Your task to perform on an android device: snooze an email in the gmail app Image 0: 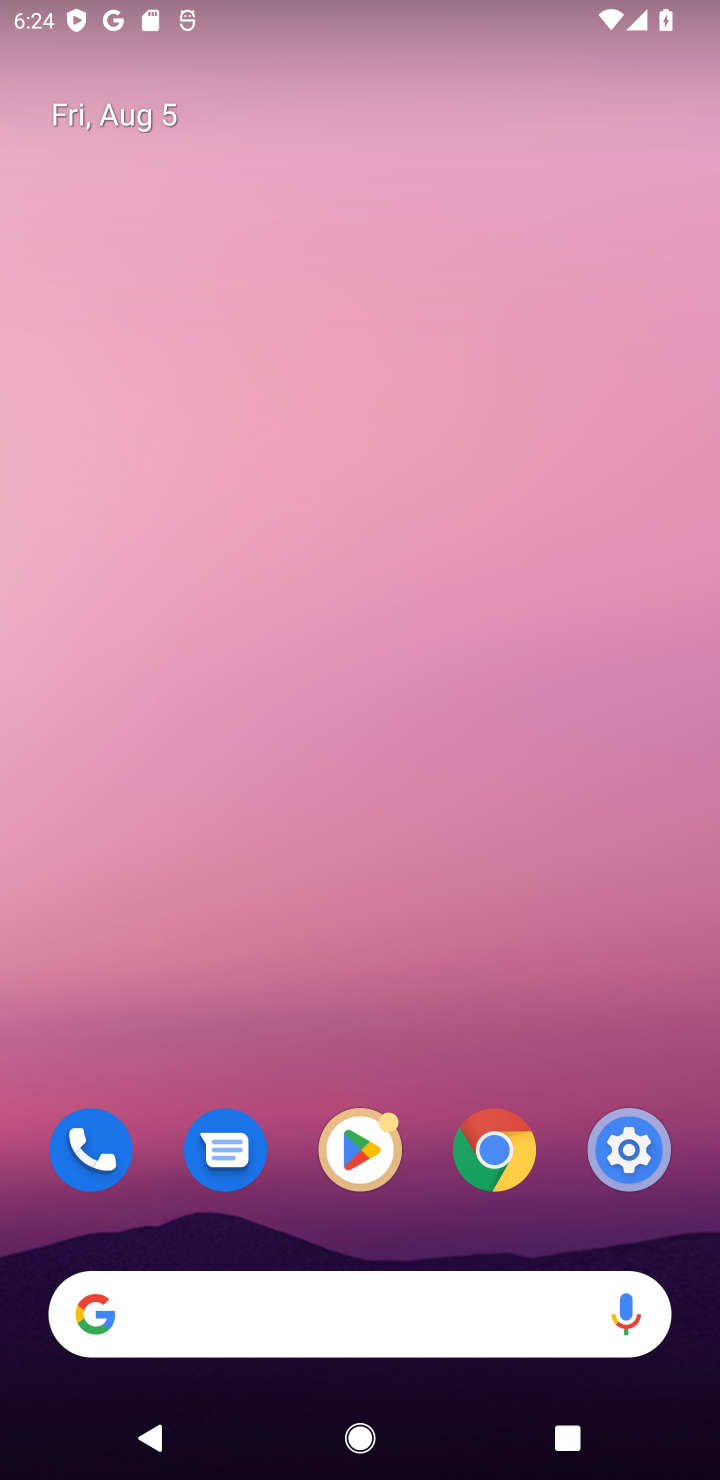
Step 0: drag from (309, 818) to (274, 99)
Your task to perform on an android device: snooze an email in the gmail app Image 1: 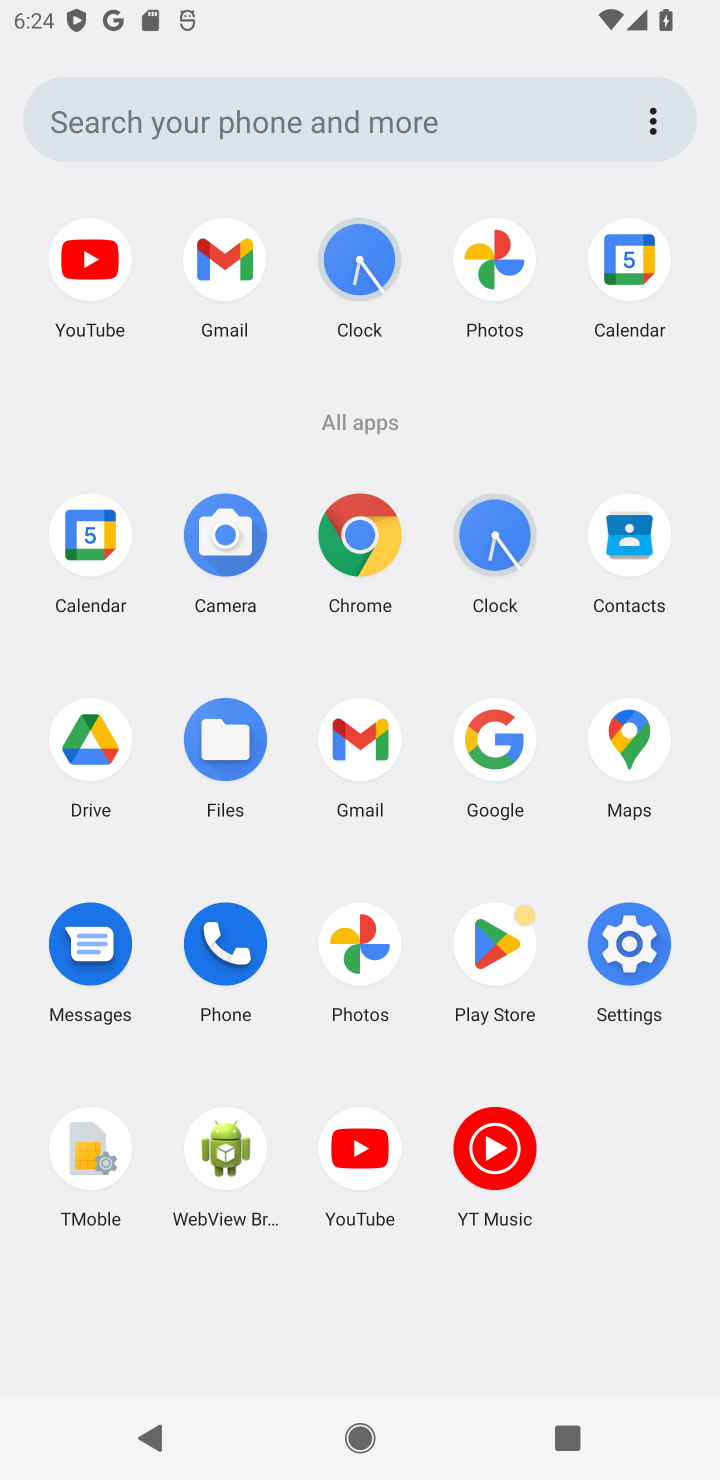
Step 1: click (375, 760)
Your task to perform on an android device: snooze an email in the gmail app Image 2: 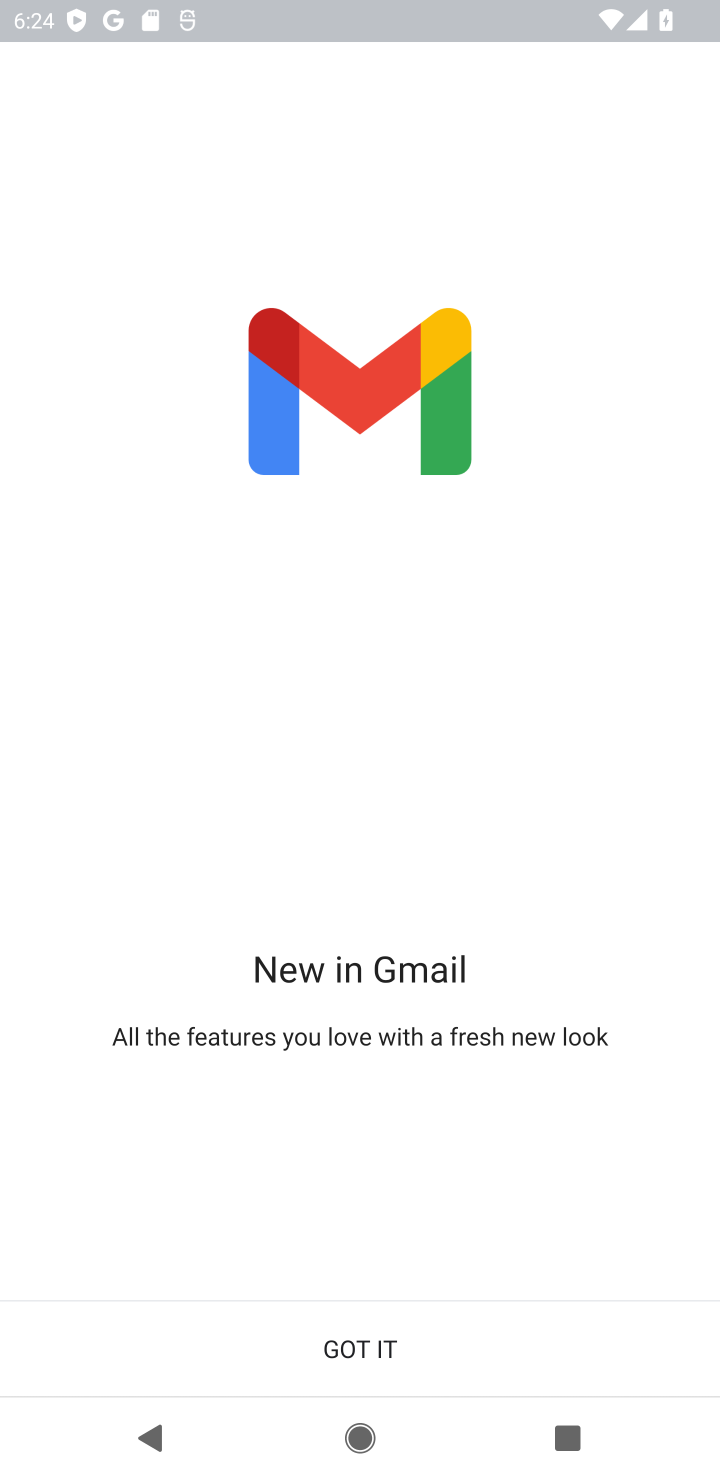
Step 2: click (369, 1340)
Your task to perform on an android device: snooze an email in the gmail app Image 3: 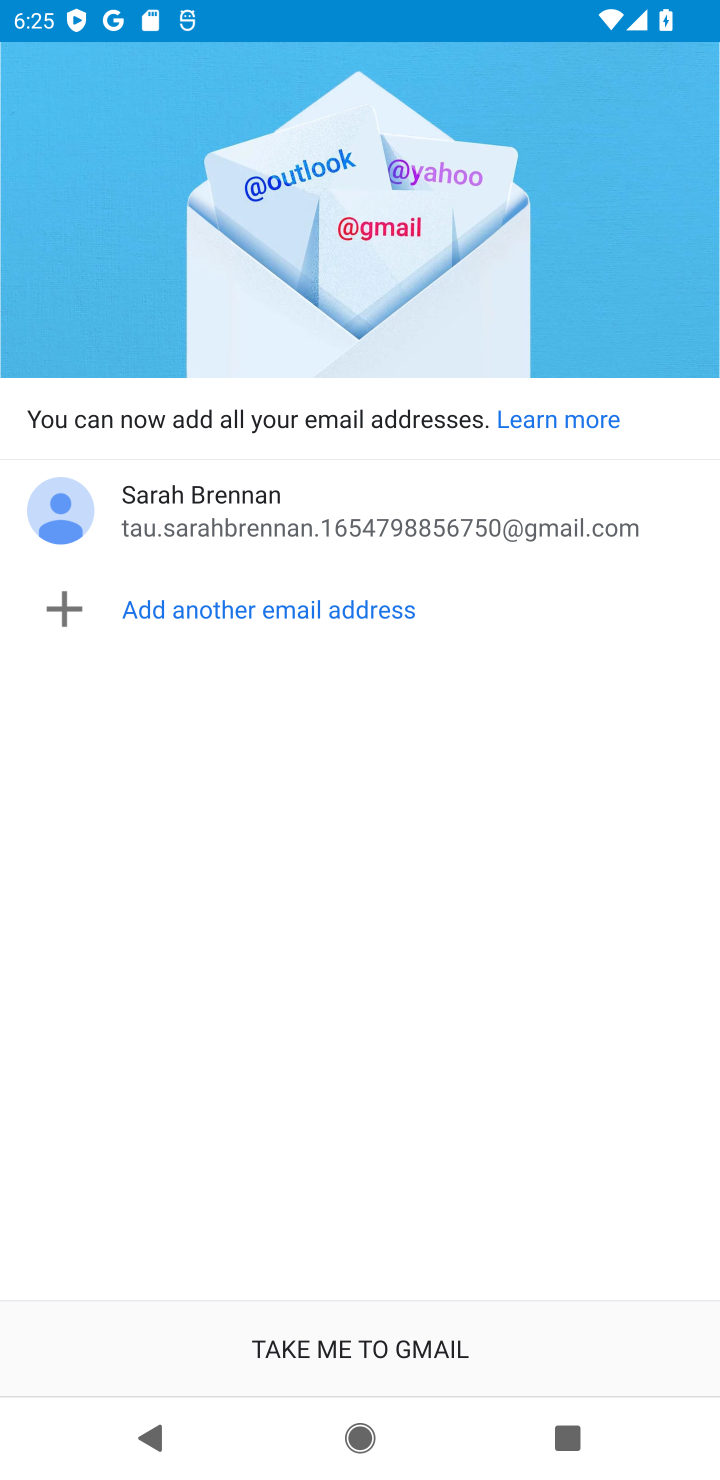
Step 3: click (369, 1340)
Your task to perform on an android device: snooze an email in the gmail app Image 4: 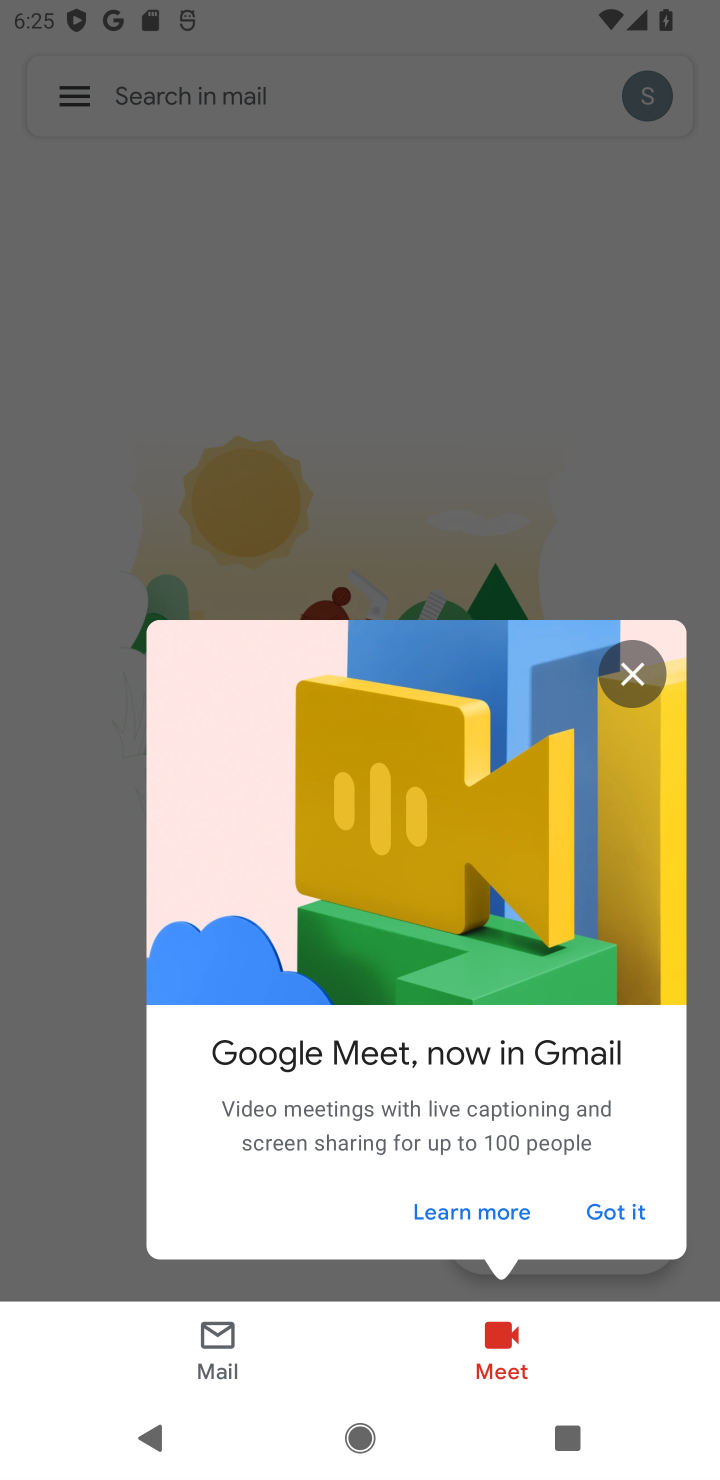
Step 4: task complete